Your task to perform on an android device: turn off airplane mode Image 0: 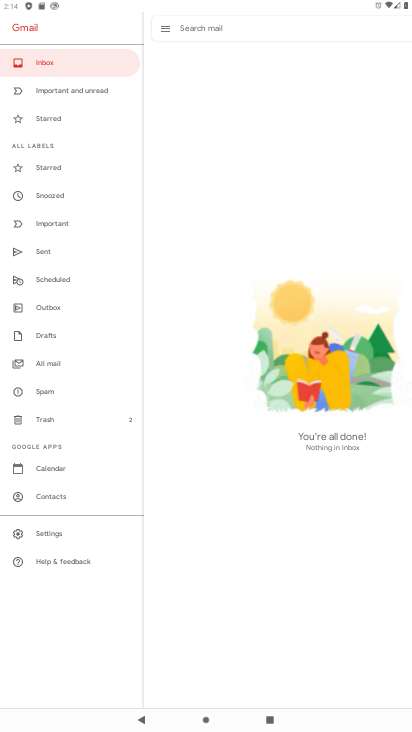
Step 0: drag from (239, 10) to (269, 460)
Your task to perform on an android device: turn off airplane mode Image 1: 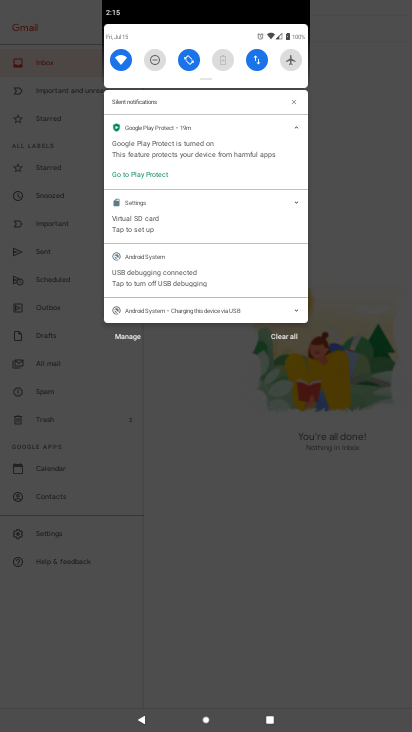
Step 1: task complete